Your task to perform on an android device: change notification settings in the gmail app Image 0: 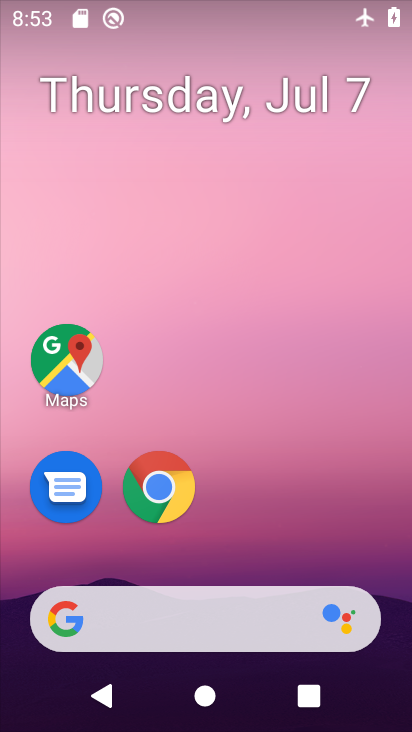
Step 0: drag from (340, 538) to (343, 123)
Your task to perform on an android device: change notification settings in the gmail app Image 1: 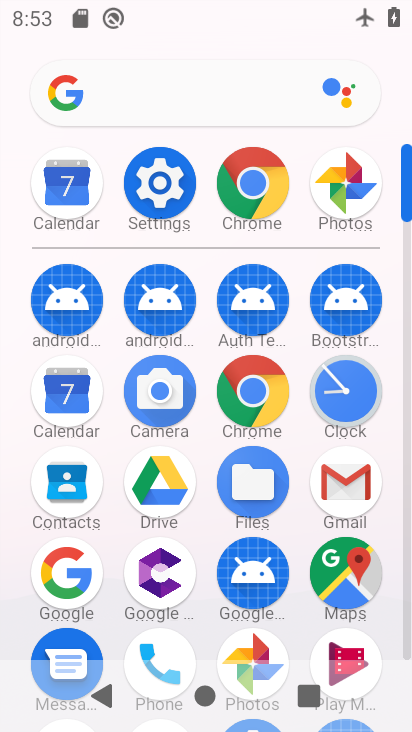
Step 1: click (361, 466)
Your task to perform on an android device: change notification settings in the gmail app Image 2: 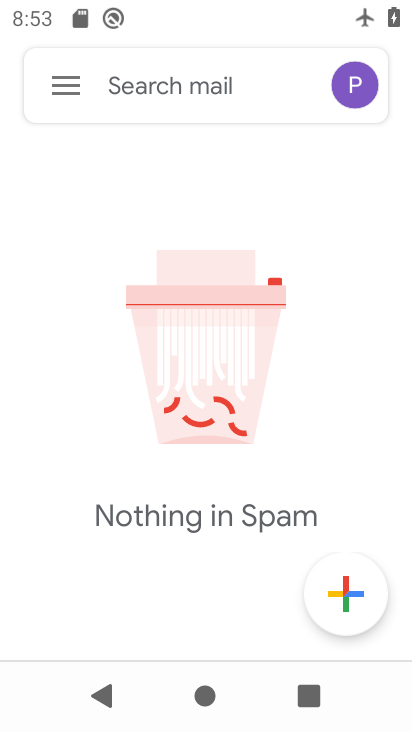
Step 2: click (69, 85)
Your task to perform on an android device: change notification settings in the gmail app Image 3: 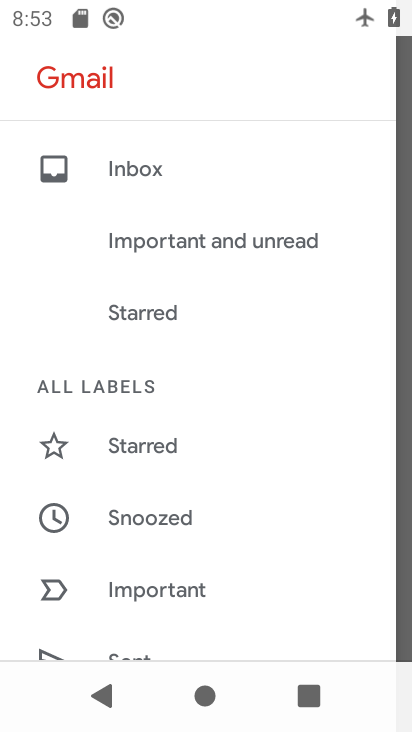
Step 3: drag from (311, 381) to (309, 256)
Your task to perform on an android device: change notification settings in the gmail app Image 4: 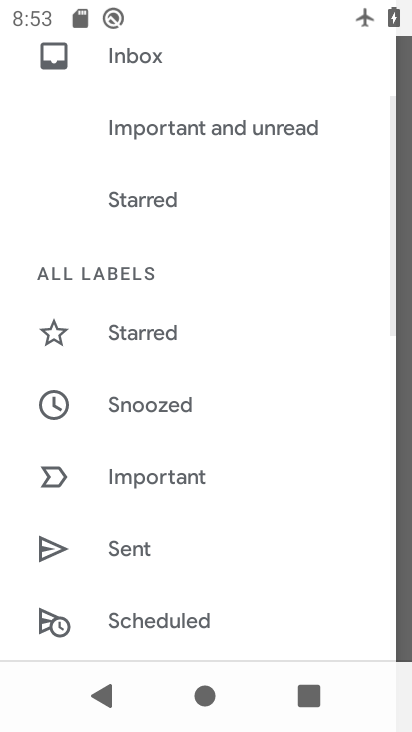
Step 4: drag from (306, 429) to (310, 219)
Your task to perform on an android device: change notification settings in the gmail app Image 5: 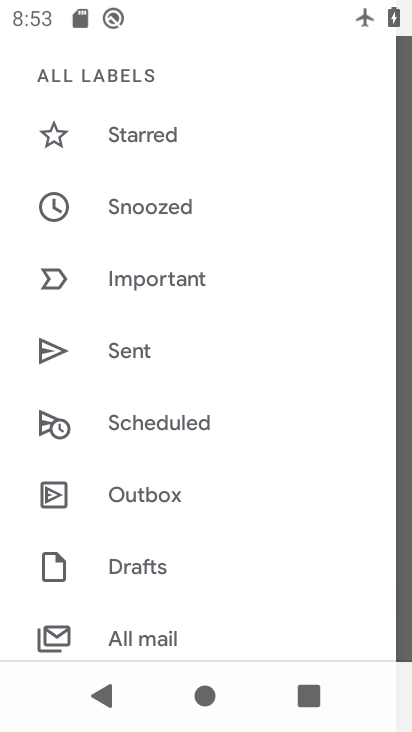
Step 5: drag from (305, 404) to (306, 239)
Your task to perform on an android device: change notification settings in the gmail app Image 6: 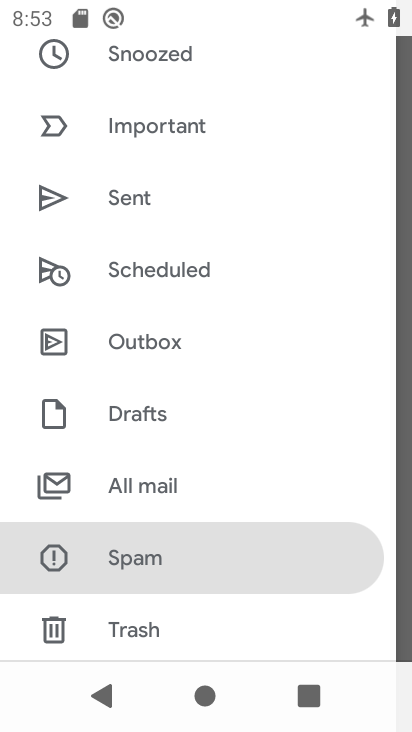
Step 6: drag from (304, 419) to (293, 254)
Your task to perform on an android device: change notification settings in the gmail app Image 7: 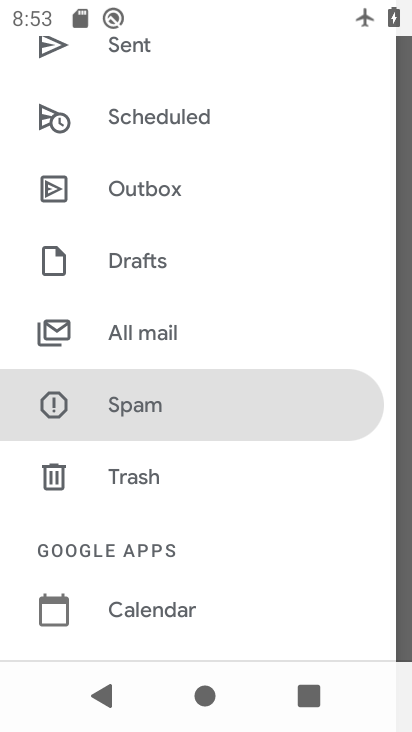
Step 7: drag from (287, 492) to (281, 260)
Your task to perform on an android device: change notification settings in the gmail app Image 8: 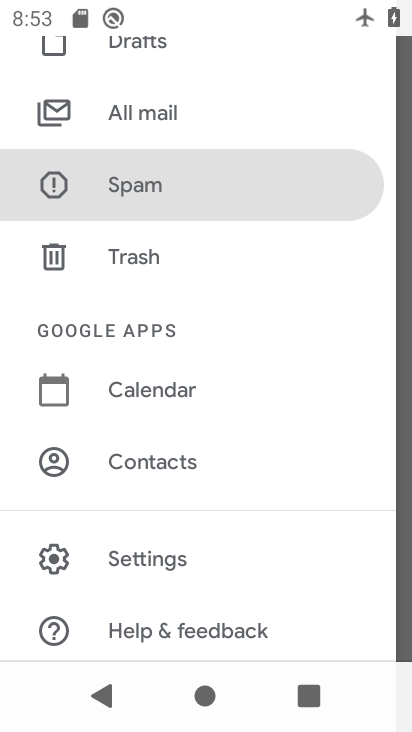
Step 8: drag from (300, 487) to (300, 341)
Your task to perform on an android device: change notification settings in the gmail app Image 9: 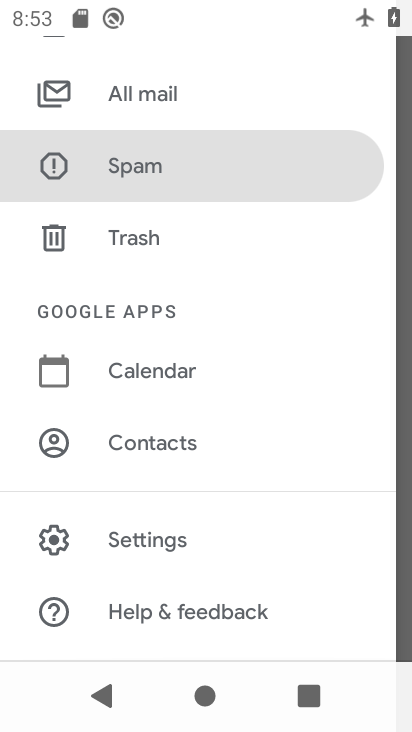
Step 9: click (228, 545)
Your task to perform on an android device: change notification settings in the gmail app Image 10: 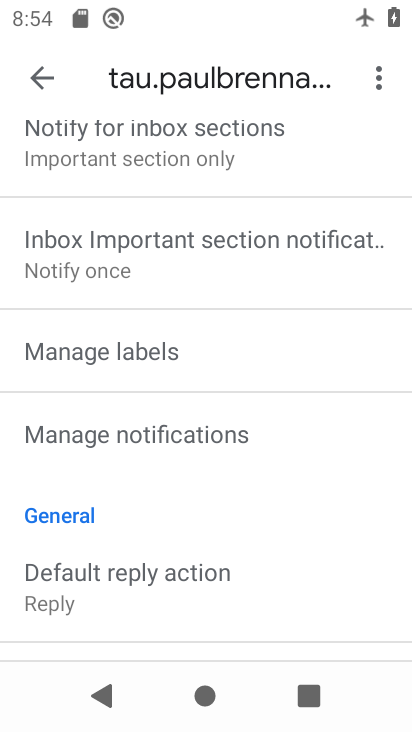
Step 10: drag from (283, 499) to (285, 360)
Your task to perform on an android device: change notification settings in the gmail app Image 11: 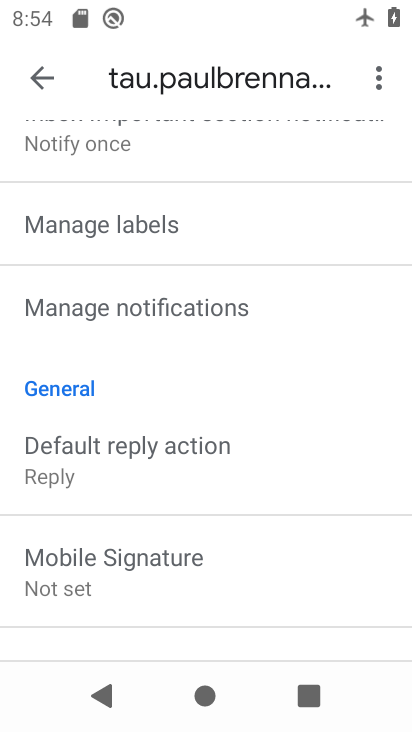
Step 11: drag from (300, 494) to (281, 317)
Your task to perform on an android device: change notification settings in the gmail app Image 12: 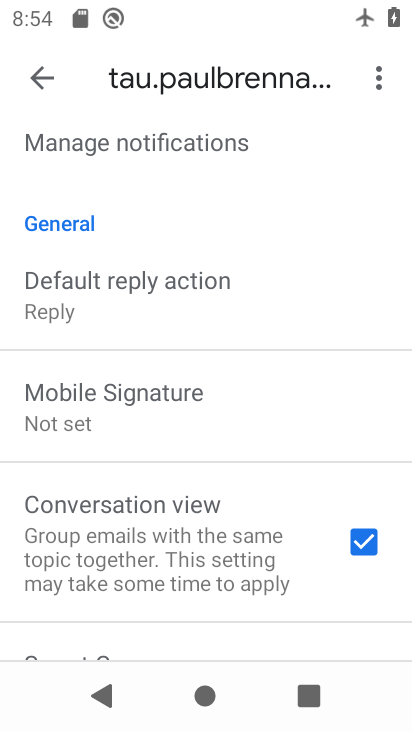
Step 12: drag from (295, 453) to (297, 280)
Your task to perform on an android device: change notification settings in the gmail app Image 13: 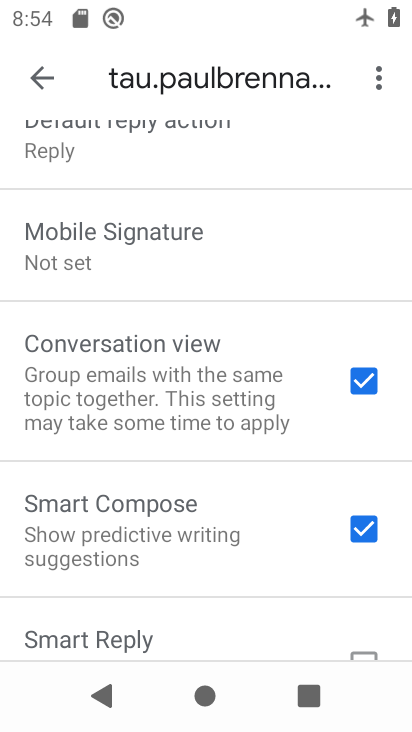
Step 13: drag from (299, 240) to (302, 342)
Your task to perform on an android device: change notification settings in the gmail app Image 14: 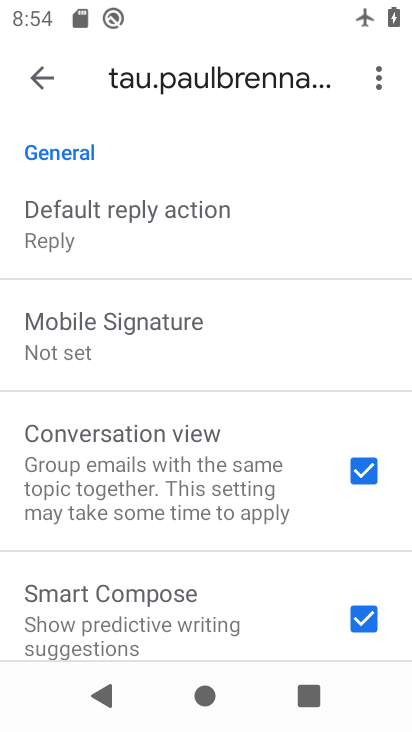
Step 14: drag from (291, 246) to (283, 349)
Your task to perform on an android device: change notification settings in the gmail app Image 15: 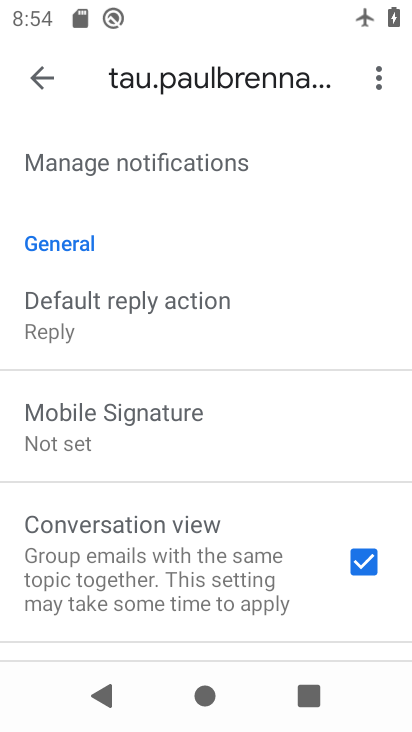
Step 15: drag from (285, 224) to (290, 391)
Your task to perform on an android device: change notification settings in the gmail app Image 16: 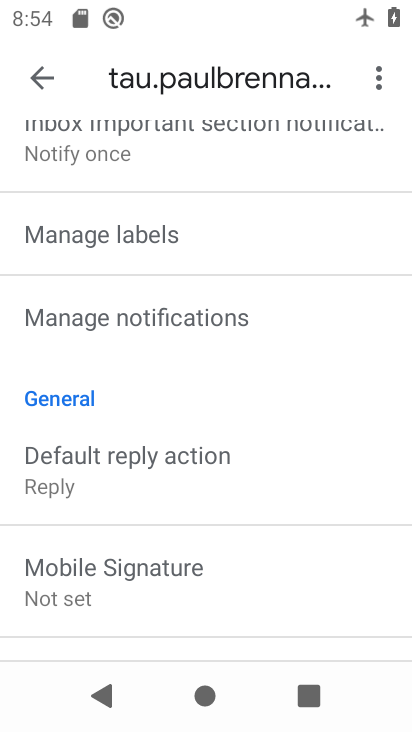
Step 16: drag from (279, 230) to (278, 441)
Your task to perform on an android device: change notification settings in the gmail app Image 17: 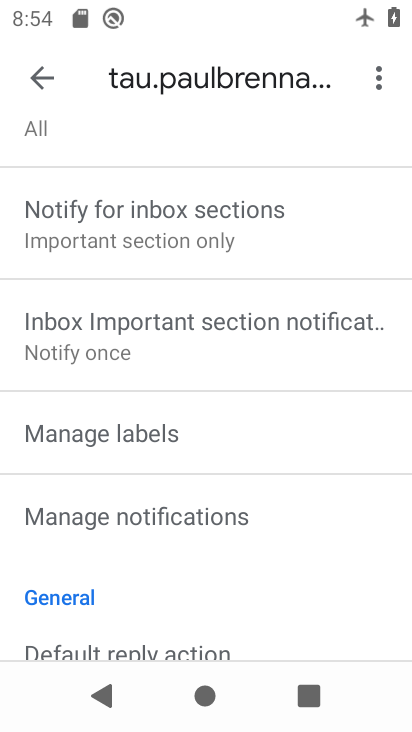
Step 17: drag from (264, 272) to (271, 420)
Your task to perform on an android device: change notification settings in the gmail app Image 18: 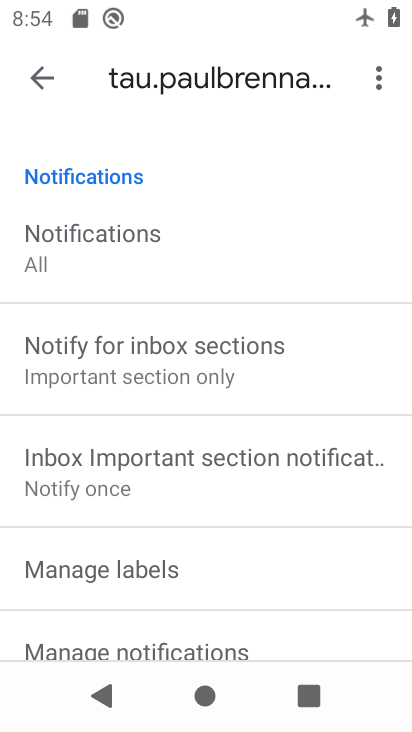
Step 18: click (107, 264)
Your task to perform on an android device: change notification settings in the gmail app Image 19: 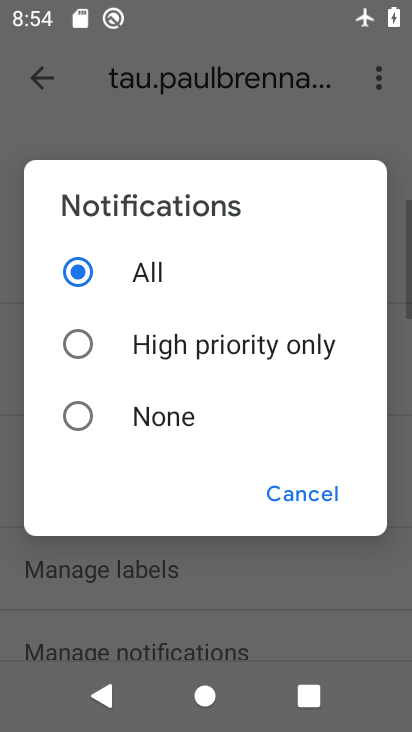
Step 19: click (146, 347)
Your task to perform on an android device: change notification settings in the gmail app Image 20: 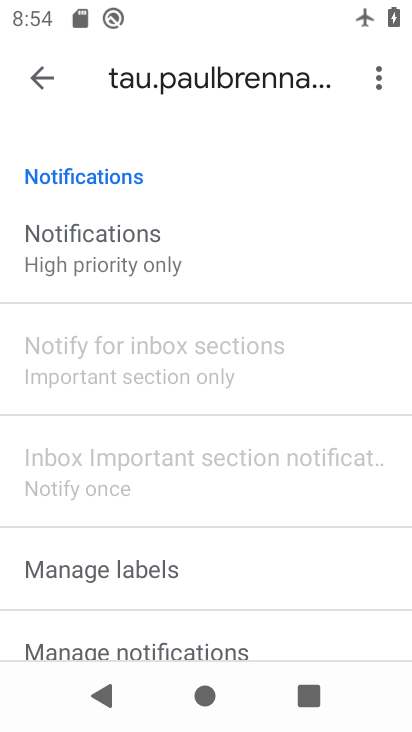
Step 20: task complete